Your task to perform on an android device: Open calendar and show me the third week of next month Image 0: 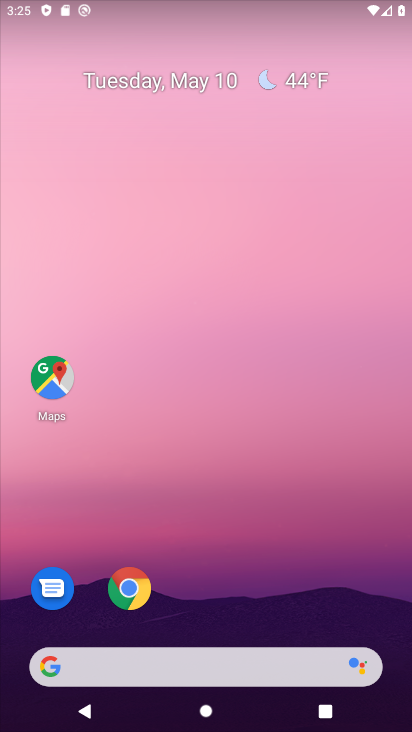
Step 0: drag from (271, 600) to (222, 95)
Your task to perform on an android device: Open calendar and show me the third week of next month Image 1: 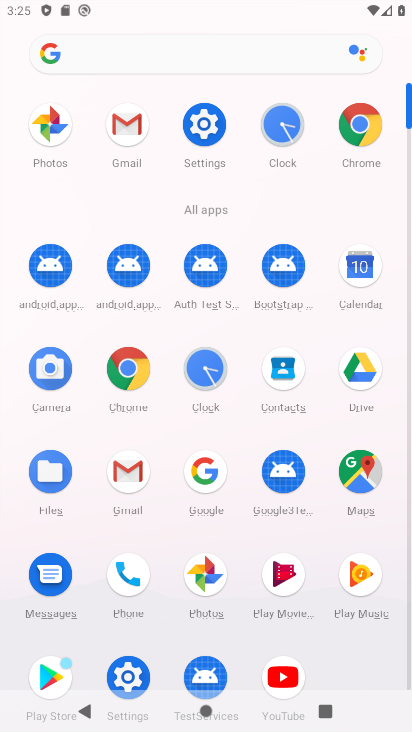
Step 1: click (355, 272)
Your task to perform on an android device: Open calendar and show me the third week of next month Image 2: 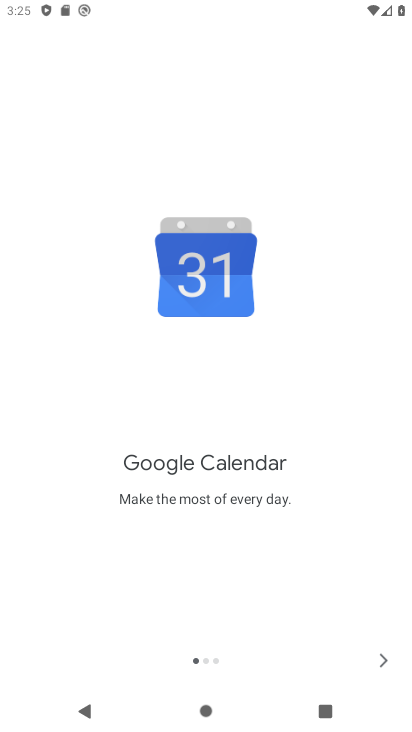
Step 2: click (384, 661)
Your task to perform on an android device: Open calendar and show me the third week of next month Image 3: 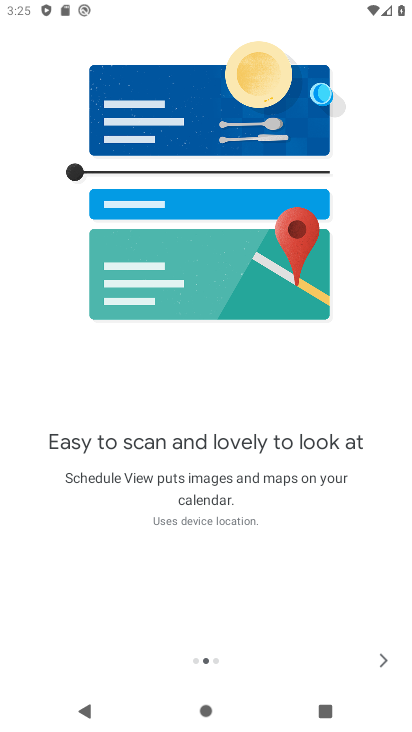
Step 3: click (384, 661)
Your task to perform on an android device: Open calendar and show me the third week of next month Image 4: 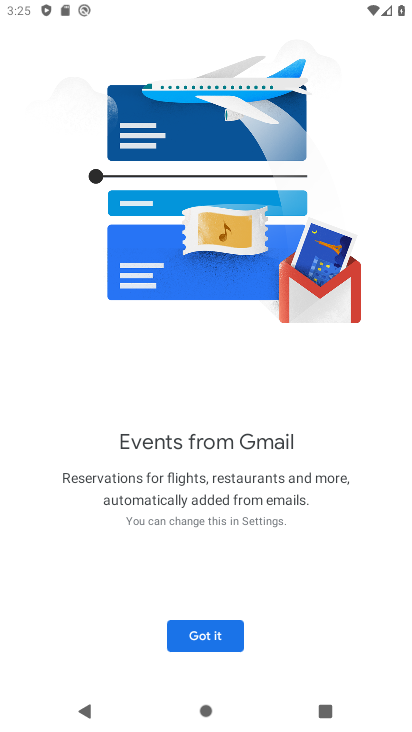
Step 4: click (221, 638)
Your task to perform on an android device: Open calendar and show me the third week of next month Image 5: 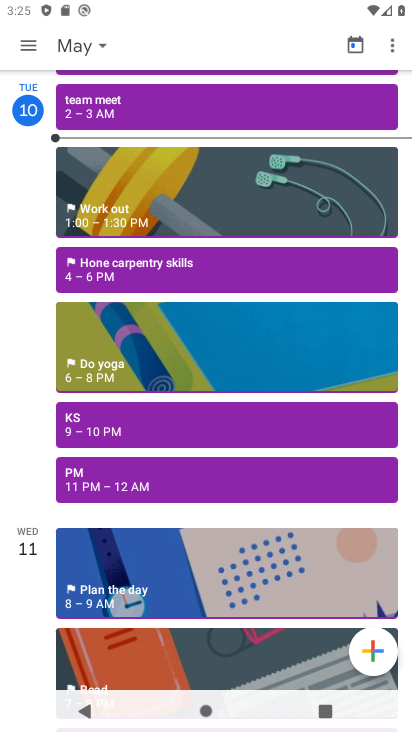
Step 5: click (24, 40)
Your task to perform on an android device: Open calendar and show me the third week of next month Image 6: 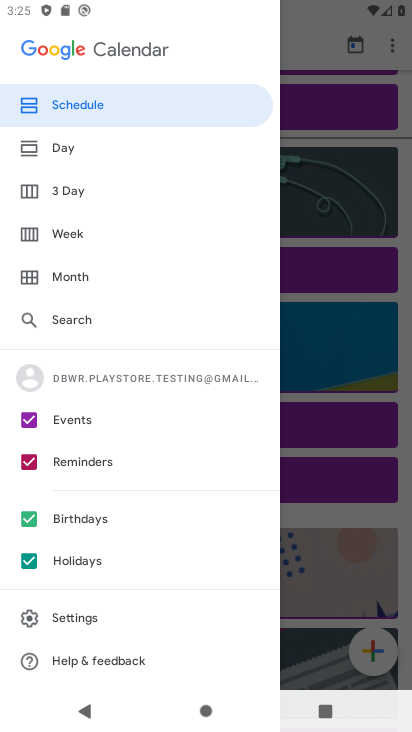
Step 6: click (72, 231)
Your task to perform on an android device: Open calendar and show me the third week of next month Image 7: 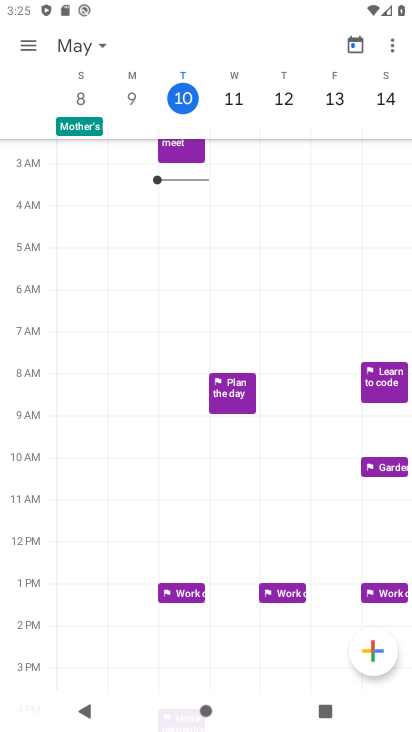
Step 7: click (89, 37)
Your task to perform on an android device: Open calendar and show me the third week of next month Image 8: 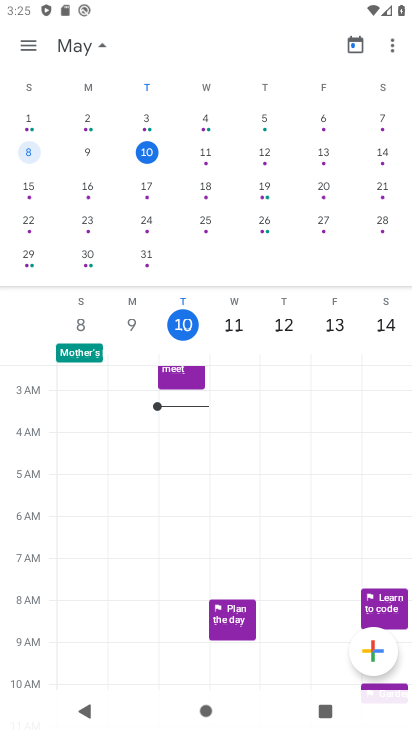
Step 8: drag from (369, 199) to (9, 165)
Your task to perform on an android device: Open calendar and show me the third week of next month Image 9: 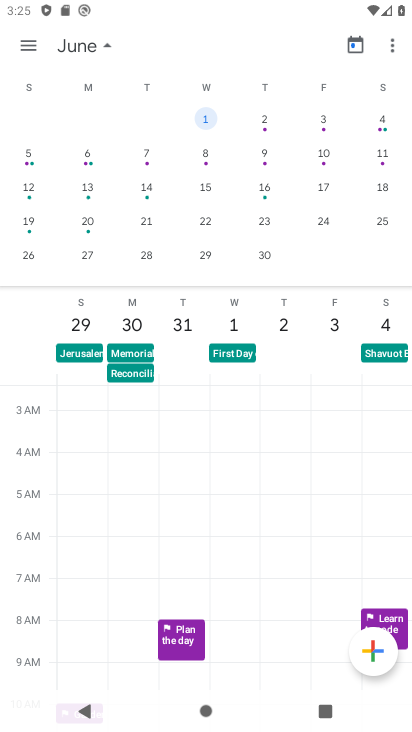
Step 9: click (86, 227)
Your task to perform on an android device: Open calendar and show me the third week of next month Image 10: 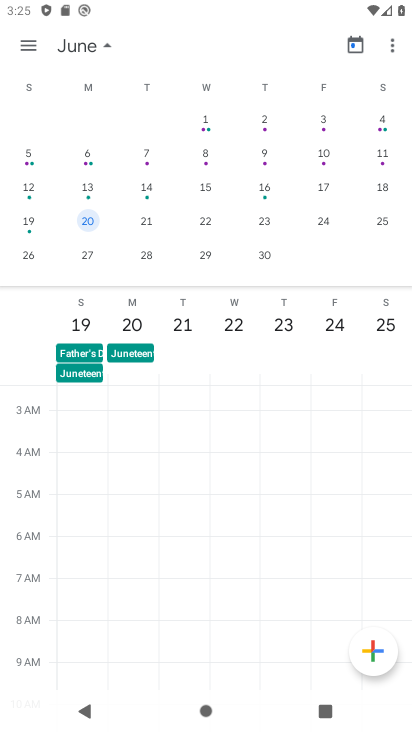
Step 10: task complete